Your task to perform on an android device: turn off location history Image 0: 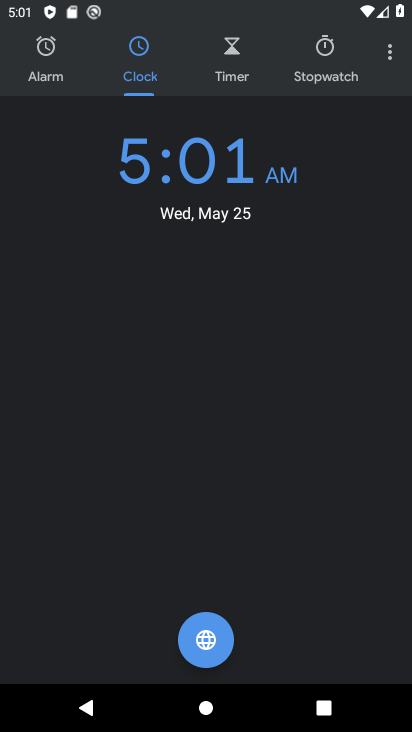
Step 0: press back button
Your task to perform on an android device: turn off location history Image 1: 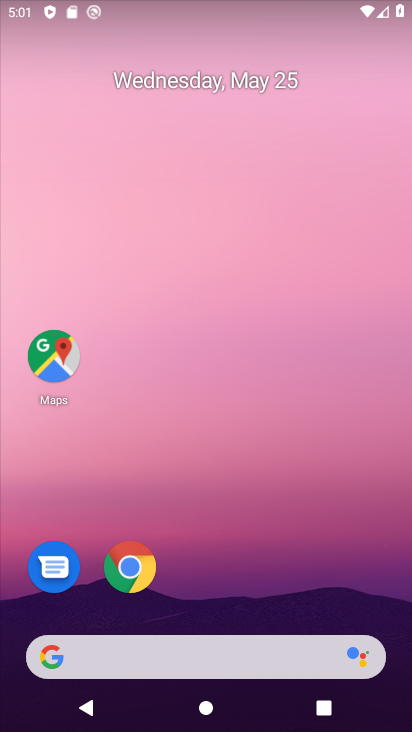
Step 1: drag from (348, 532) to (292, 50)
Your task to perform on an android device: turn off location history Image 2: 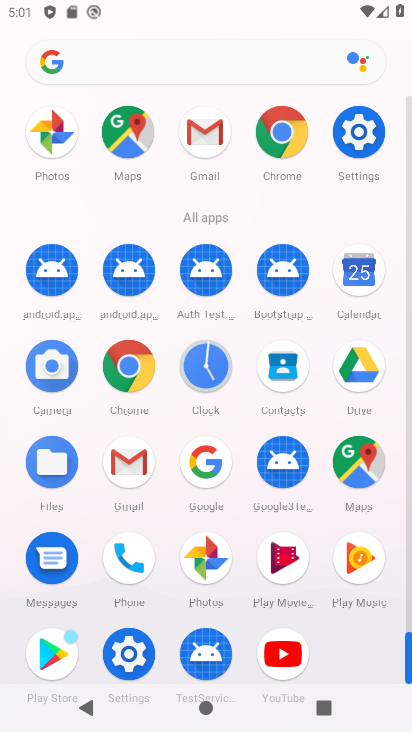
Step 2: drag from (10, 549) to (6, 248)
Your task to perform on an android device: turn off location history Image 3: 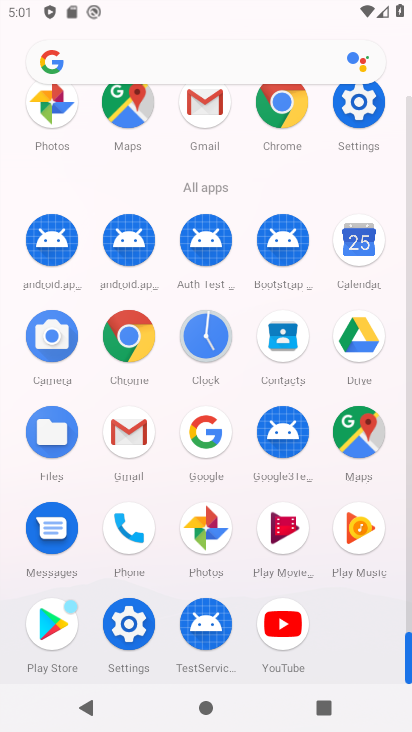
Step 3: click (127, 623)
Your task to perform on an android device: turn off location history Image 4: 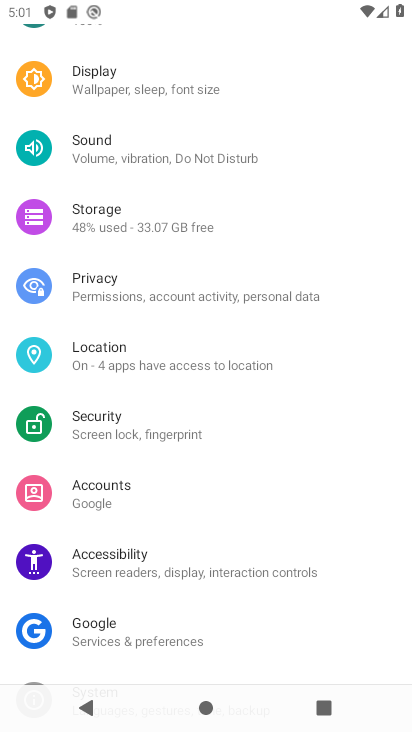
Step 4: drag from (261, 571) to (254, 83)
Your task to perform on an android device: turn off location history Image 5: 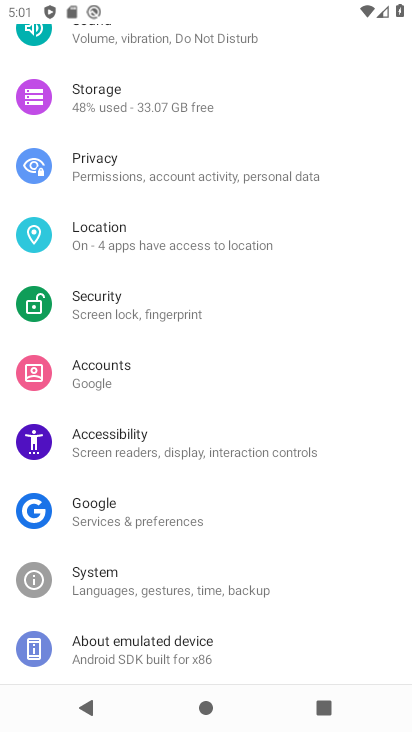
Step 5: click (144, 230)
Your task to perform on an android device: turn off location history Image 6: 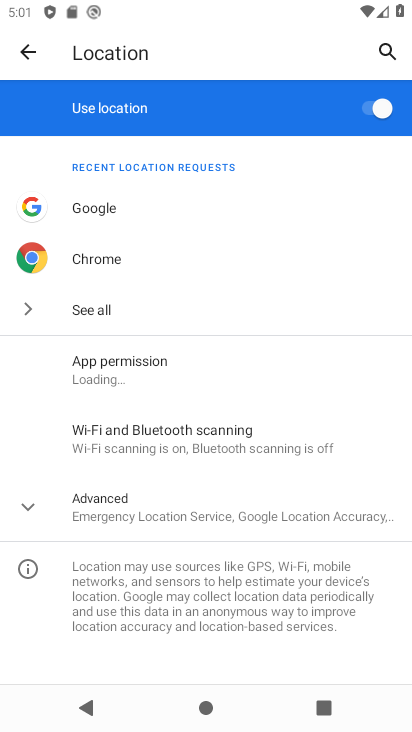
Step 6: drag from (232, 558) to (240, 190)
Your task to perform on an android device: turn off location history Image 7: 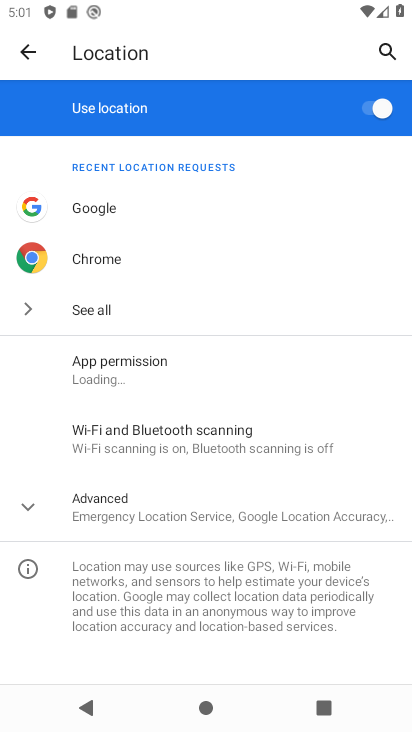
Step 7: click (39, 518)
Your task to perform on an android device: turn off location history Image 8: 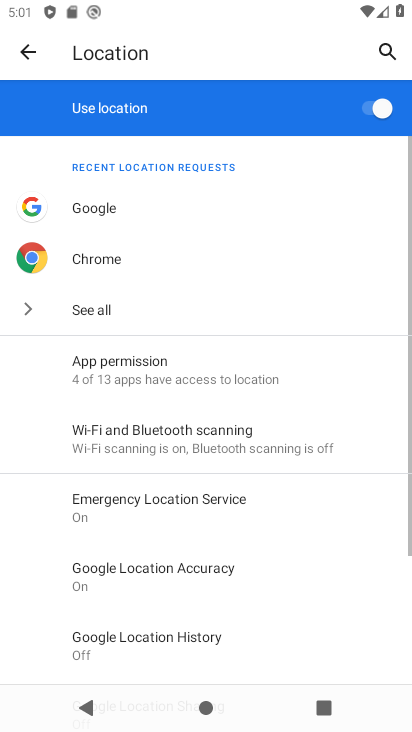
Step 8: drag from (275, 564) to (275, 143)
Your task to perform on an android device: turn off location history Image 9: 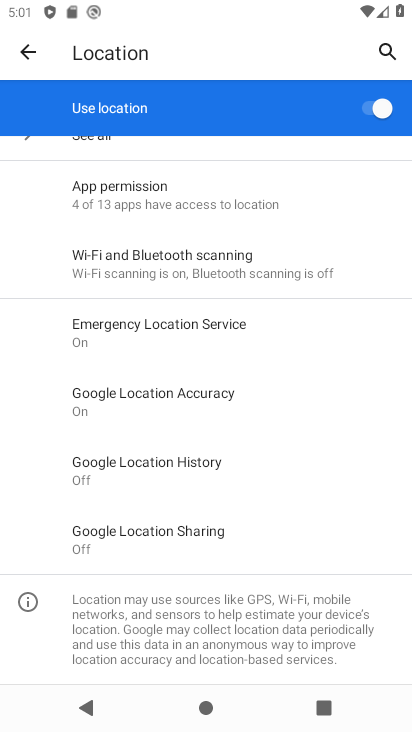
Step 9: click (195, 456)
Your task to perform on an android device: turn off location history Image 10: 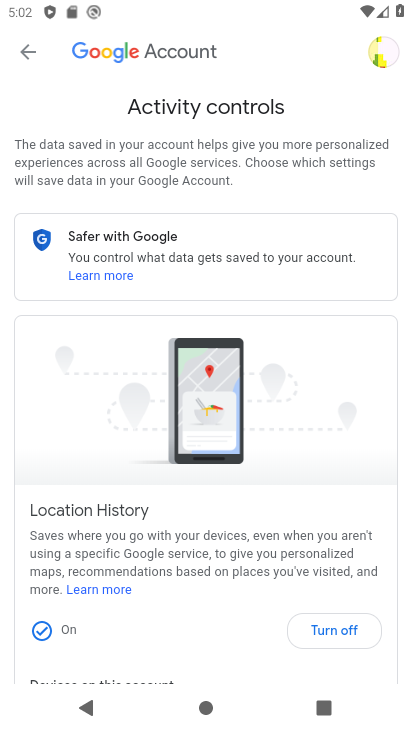
Step 10: click (343, 632)
Your task to perform on an android device: turn off location history Image 11: 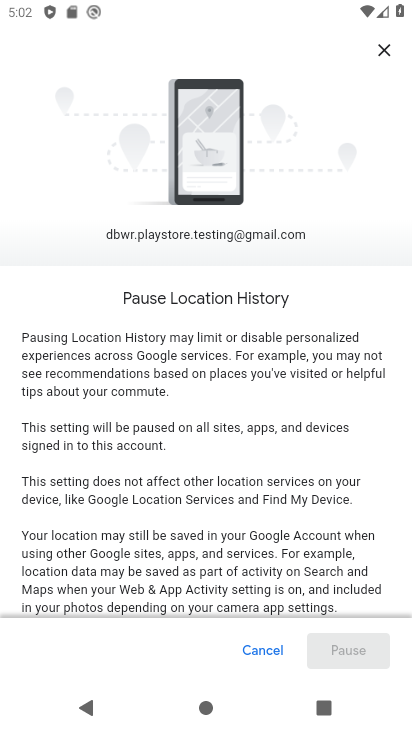
Step 11: drag from (244, 507) to (241, 94)
Your task to perform on an android device: turn off location history Image 12: 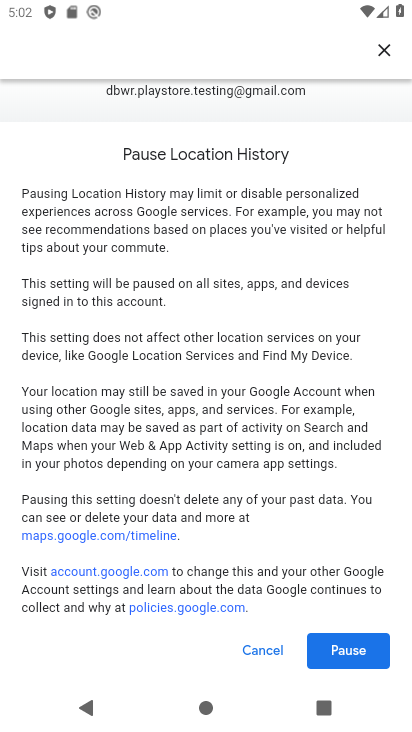
Step 12: drag from (199, 450) to (214, 149)
Your task to perform on an android device: turn off location history Image 13: 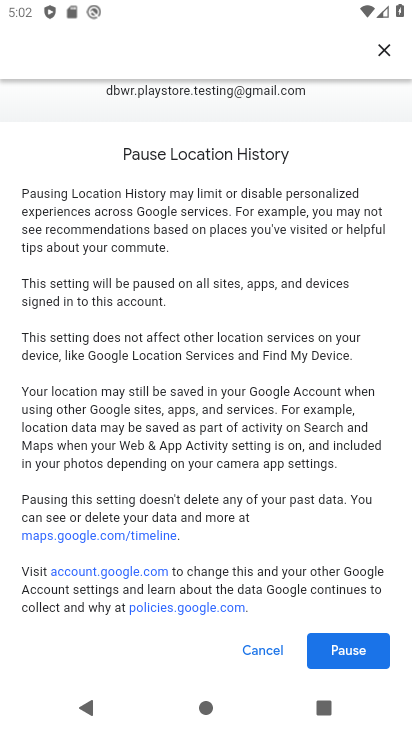
Step 13: click (332, 647)
Your task to perform on an android device: turn off location history Image 14: 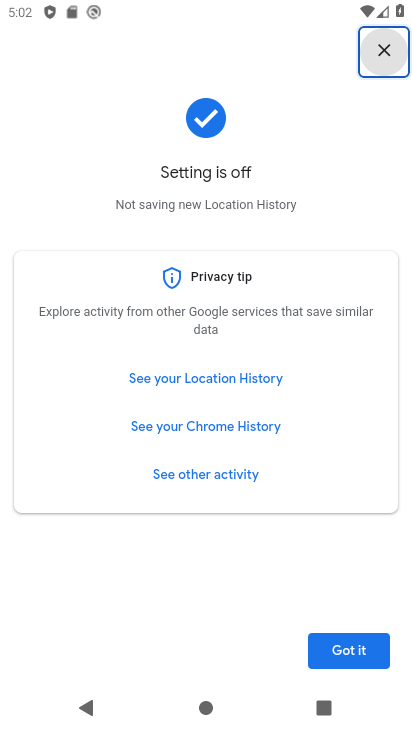
Step 14: task complete